Your task to perform on an android device: clear history in the chrome app Image 0: 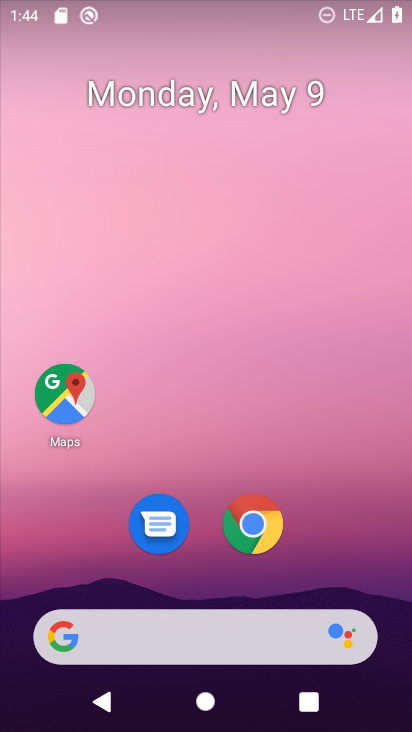
Step 0: click (248, 522)
Your task to perform on an android device: clear history in the chrome app Image 1: 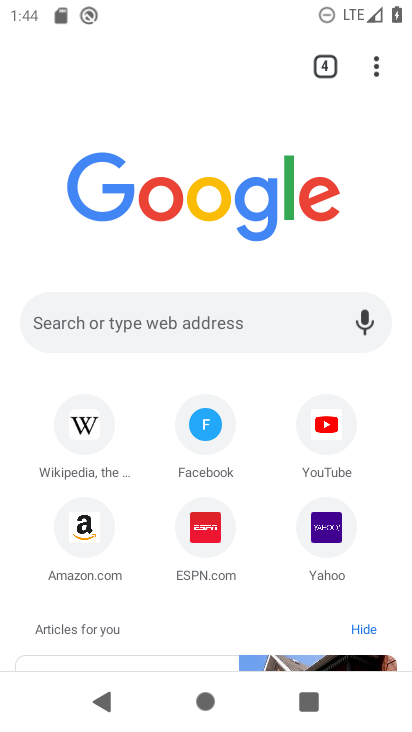
Step 1: click (372, 66)
Your task to perform on an android device: clear history in the chrome app Image 2: 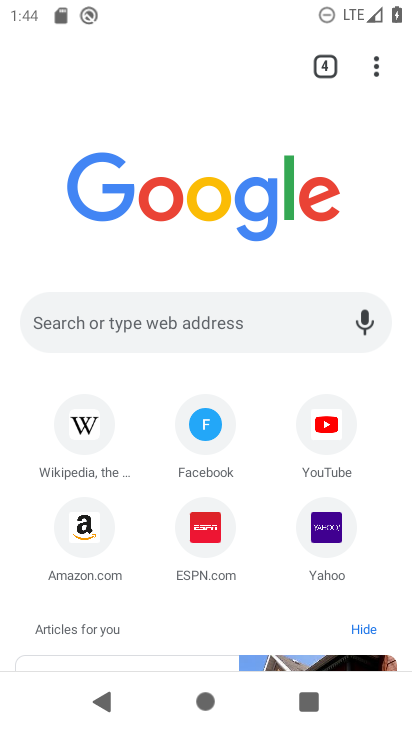
Step 2: click (376, 52)
Your task to perform on an android device: clear history in the chrome app Image 3: 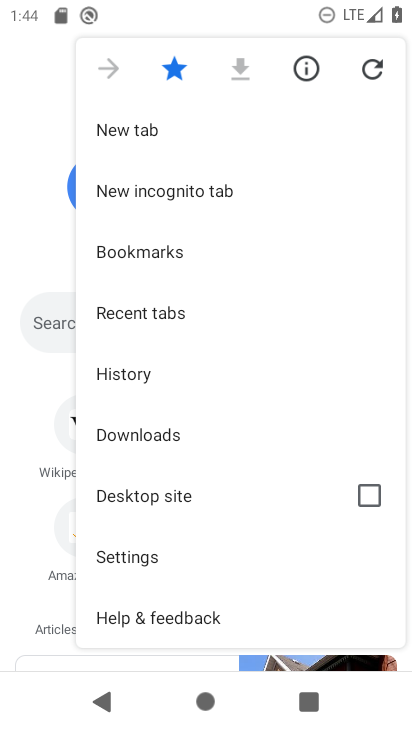
Step 3: click (146, 366)
Your task to perform on an android device: clear history in the chrome app Image 4: 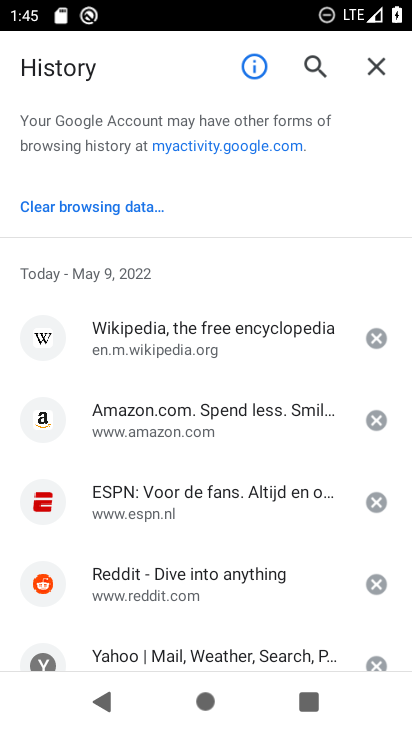
Step 4: click (130, 204)
Your task to perform on an android device: clear history in the chrome app Image 5: 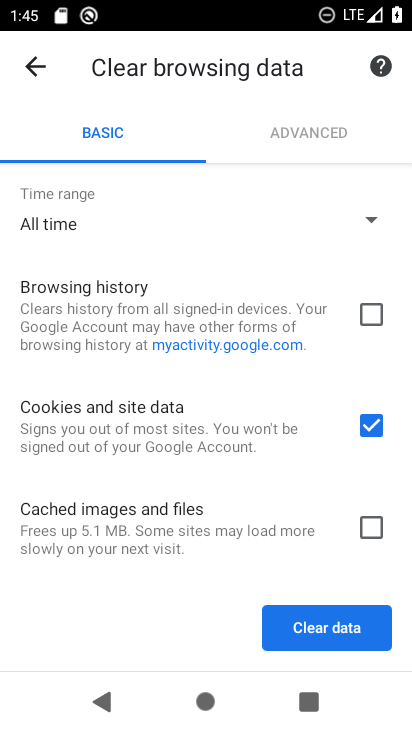
Step 5: click (364, 309)
Your task to perform on an android device: clear history in the chrome app Image 6: 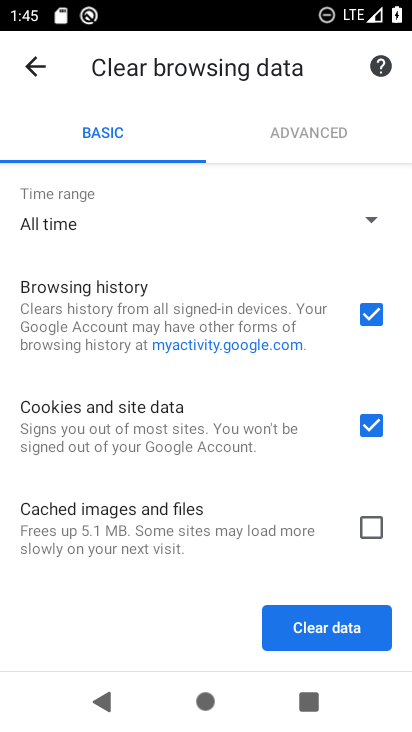
Step 6: click (377, 424)
Your task to perform on an android device: clear history in the chrome app Image 7: 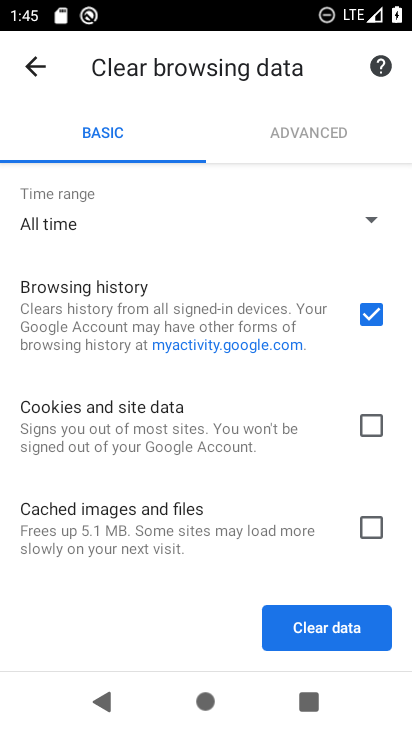
Step 7: click (338, 632)
Your task to perform on an android device: clear history in the chrome app Image 8: 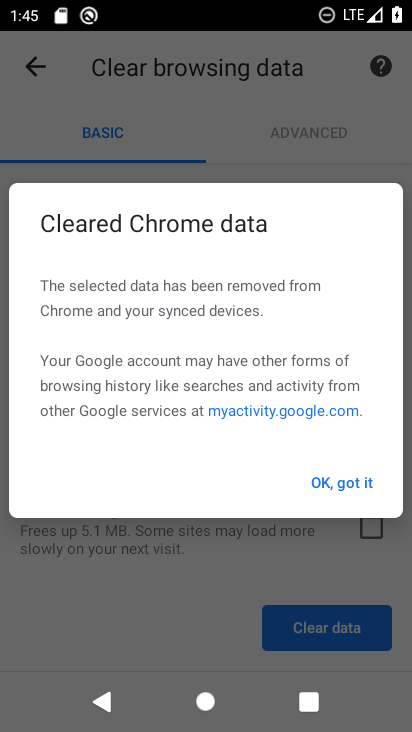
Step 8: click (320, 471)
Your task to perform on an android device: clear history in the chrome app Image 9: 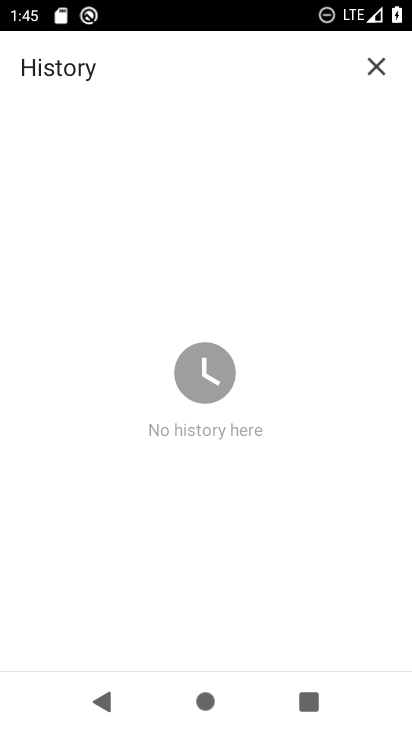
Step 9: task complete